Your task to perform on an android device: See recent photos Image 0: 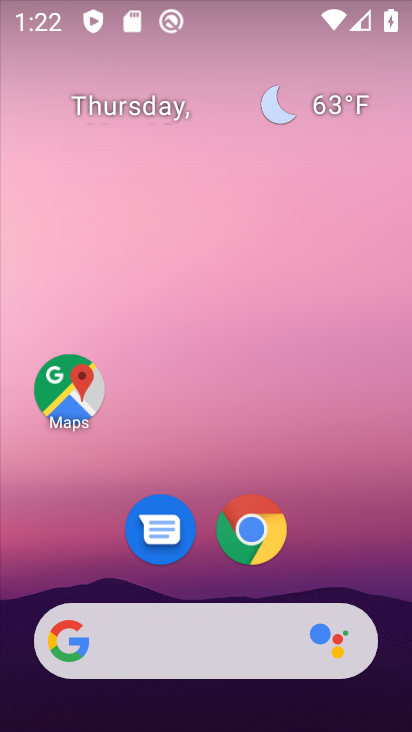
Step 0: drag from (315, 574) to (300, 152)
Your task to perform on an android device: See recent photos Image 1: 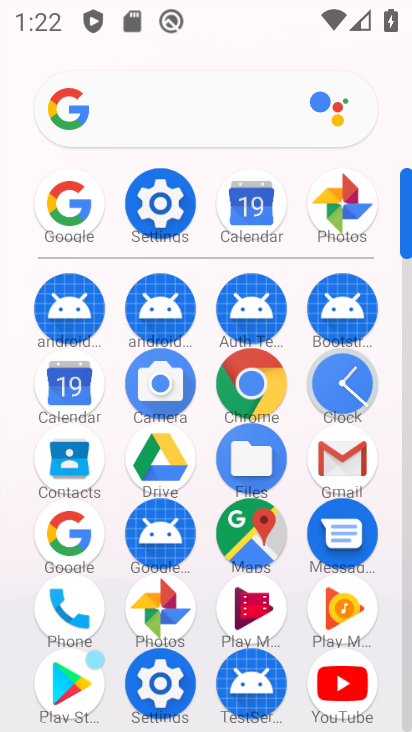
Step 1: click (342, 203)
Your task to perform on an android device: See recent photos Image 2: 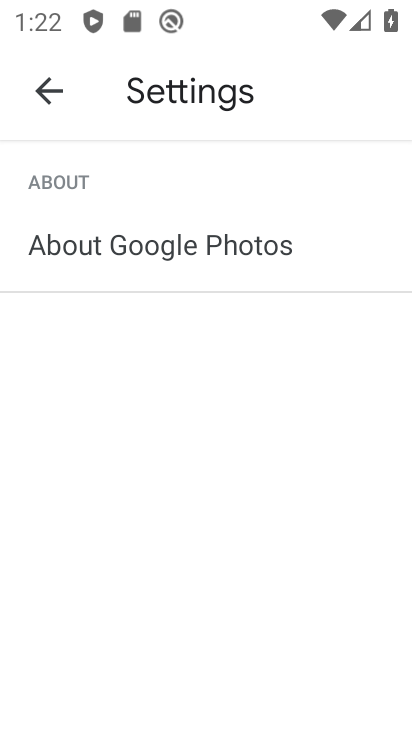
Step 2: press back button
Your task to perform on an android device: See recent photos Image 3: 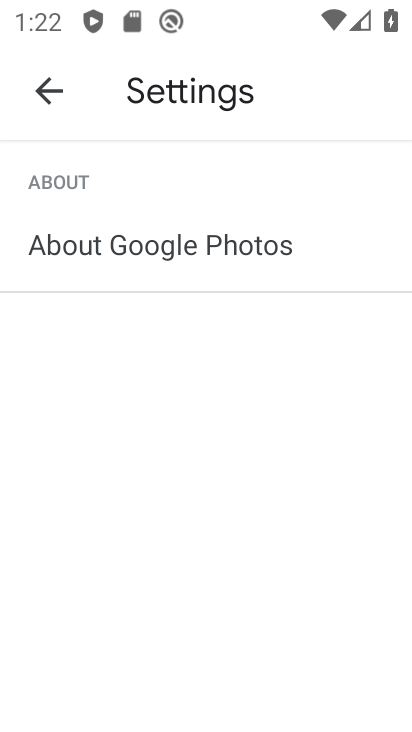
Step 3: press back button
Your task to perform on an android device: See recent photos Image 4: 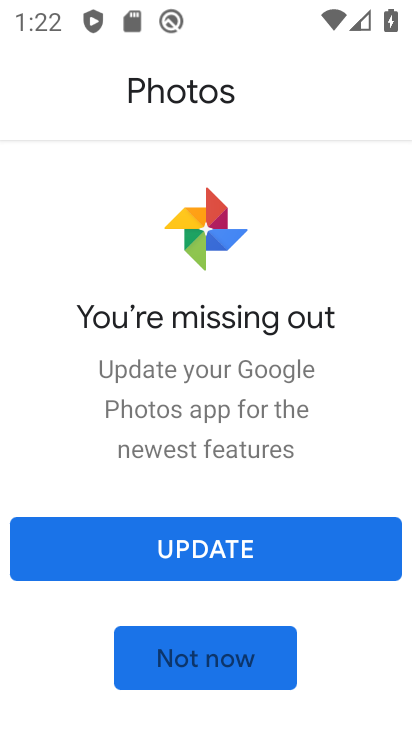
Step 4: click (218, 559)
Your task to perform on an android device: See recent photos Image 5: 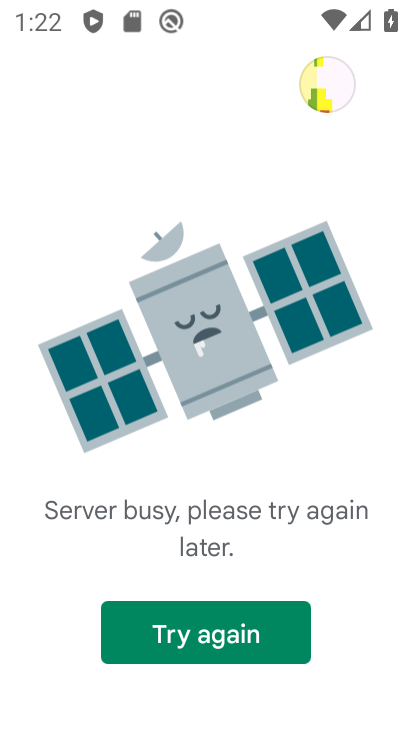
Step 5: click (192, 642)
Your task to perform on an android device: See recent photos Image 6: 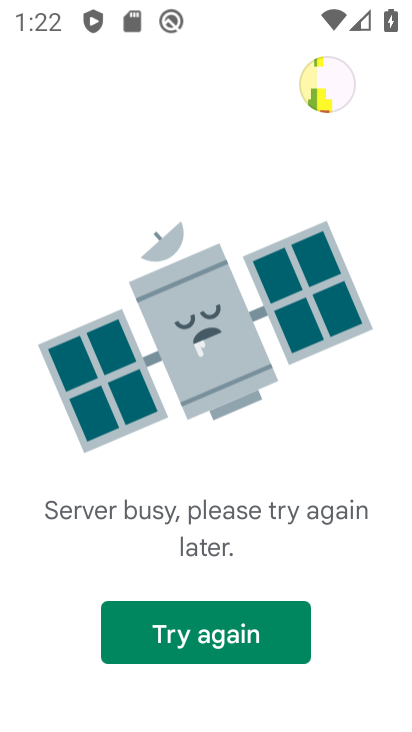
Step 6: click (179, 624)
Your task to perform on an android device: See recent photos Image 7: 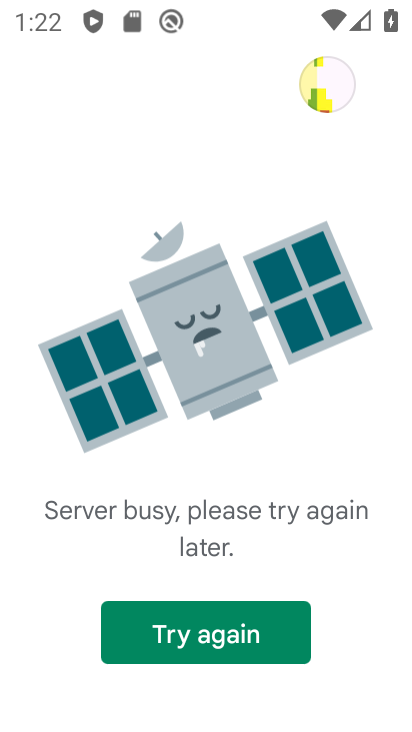
Step 7: task complete